Your task to perform on an android device: Open Chrome and go to settings Image 0: 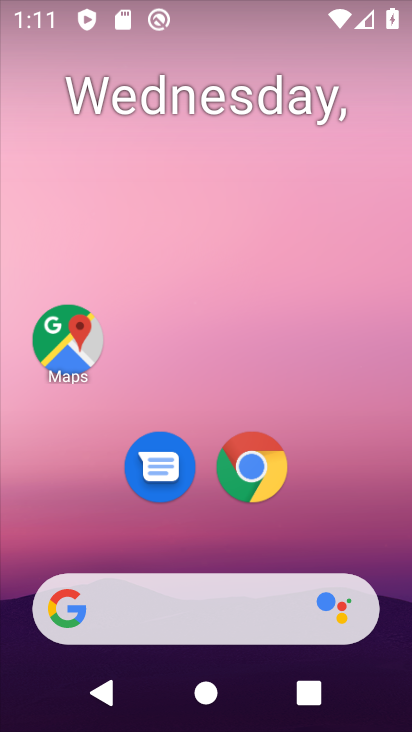
Step 0: click (268, 468)
Your task to perform on an android device: Open Chrome and go to settings Image 1: 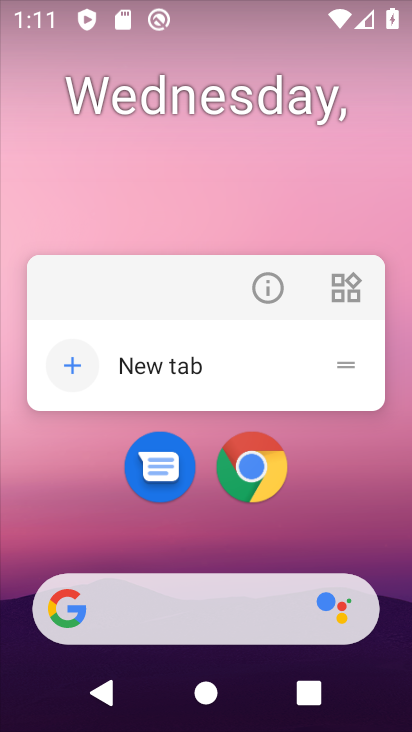
Step 1: click (265, 471)
Your task to perform on an android device: Open Chrome and go to settings Image 2: 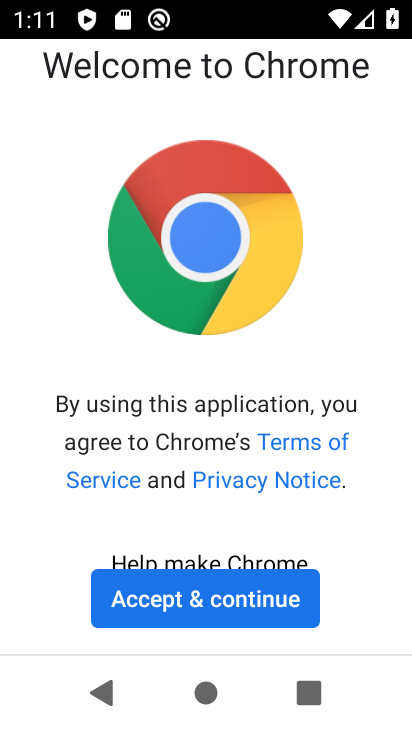
Step 2: click (256, 595)
Your task to perform on an android device: Open Chrome and go to settings Image 3: 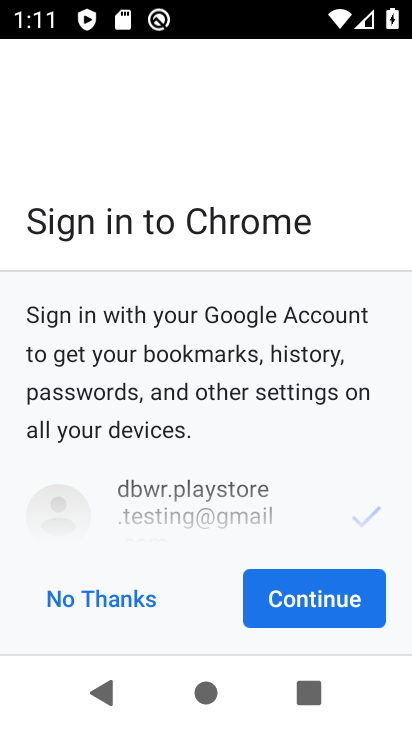
Step 3: click (344, 612)
Your task to perform on an android device: Open Chrome and go to settings Image 4: 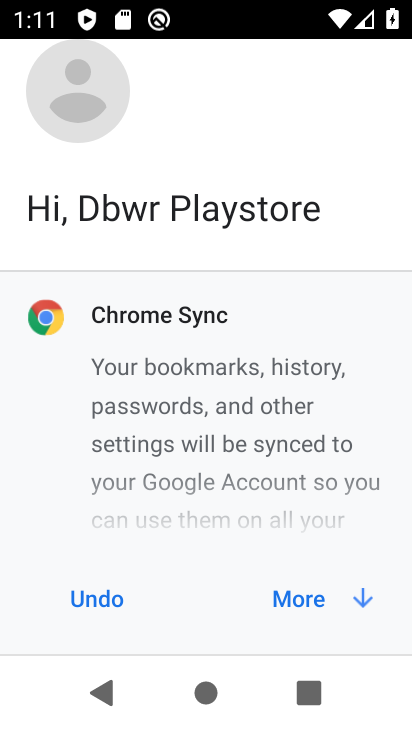
Step 4: click (344, 612)
Your task to perform on an android device: Open Chrome and go to settings Image 5: 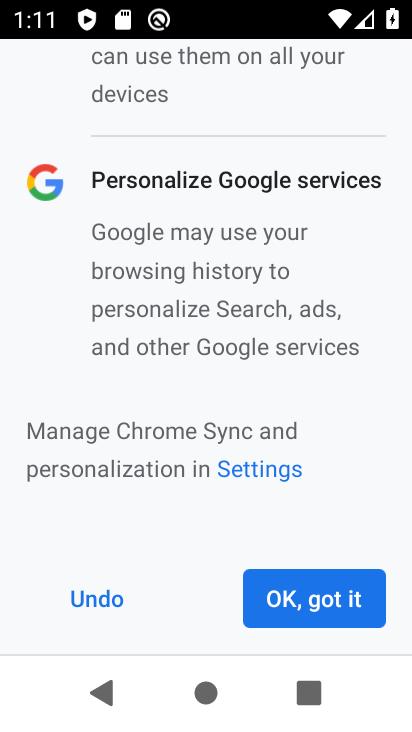
Step 5: click (344, 612)
Your task to perform on an android device: Open Chrome and go to settings Image 6: 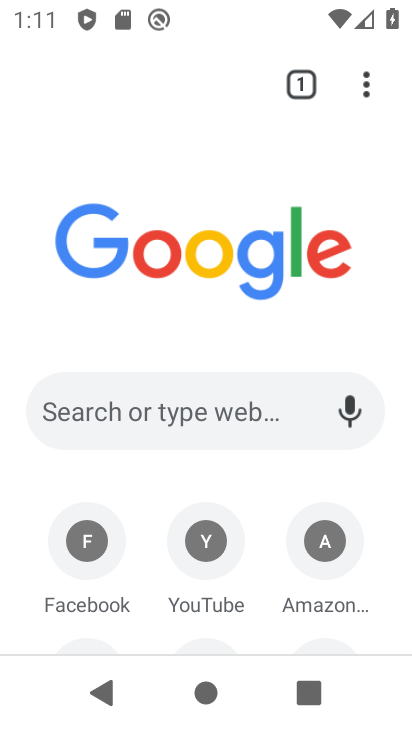
Step 6: click (372, 107)
Your task to perform on an android device: Open Chrome and go to settings Image 7: 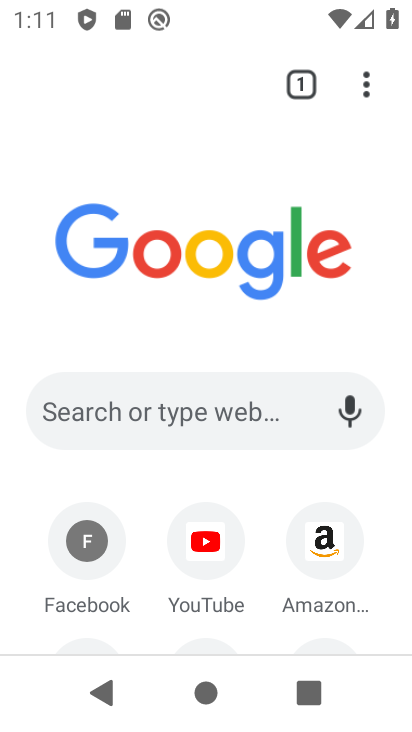
Step 7: task complete